Your task to perform on an android device: Open my contact list Image 0: 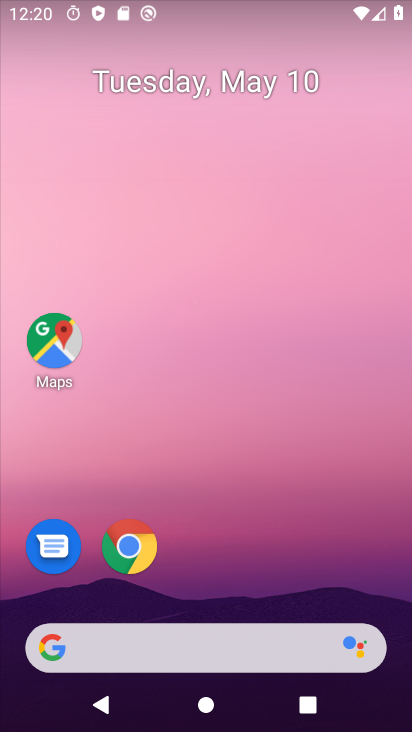
Step 0: drag from (276, 587) to (332, 173)
Your task to perform on an android device: Open my contact list Image 1: 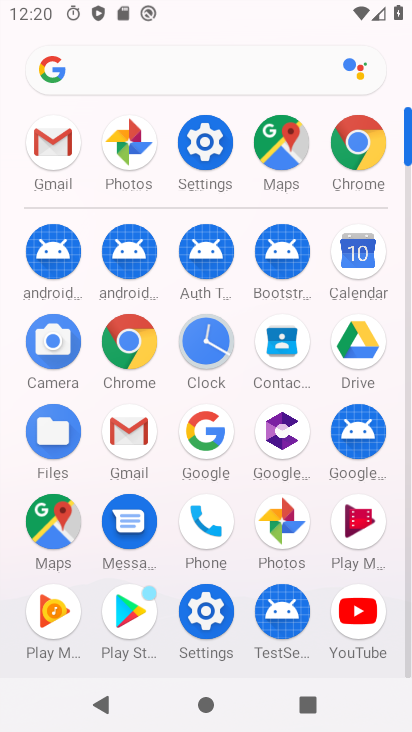
Step 1: click (403, 164)
Your task to perform on an android device: Open my contact list Image 2: 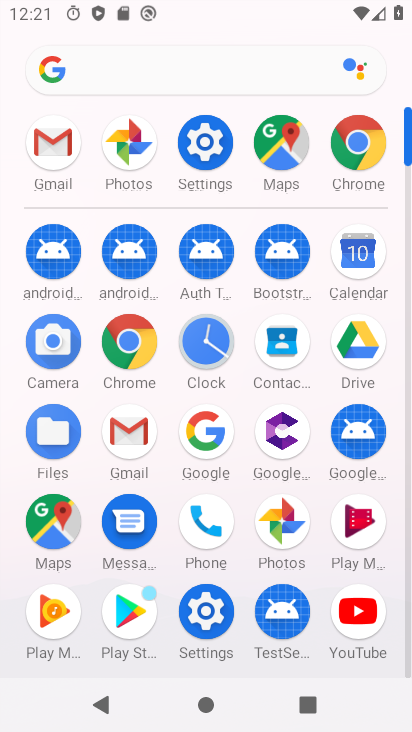
Step 2: click (294, 356)
Your task to perform on an android device: Open my contact list Image 3: 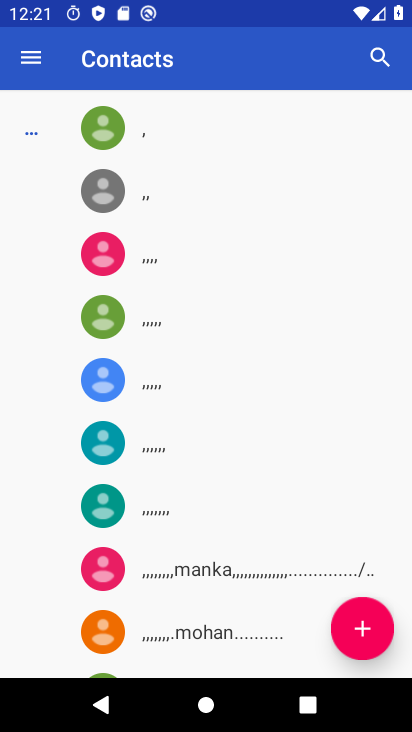
Step 3: task complete